Your task to perform on an android device: turn off sleep mode Image 0: 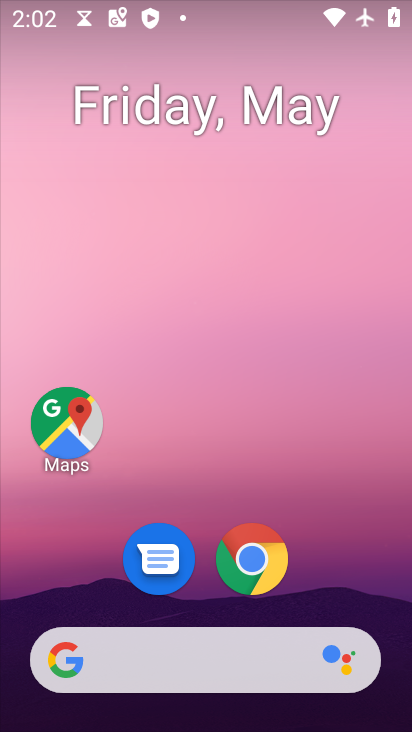
Step 0: drag from (309, 544) to (293, 19)
Your task to perform on an android device: turn off sleep mode Image 1: 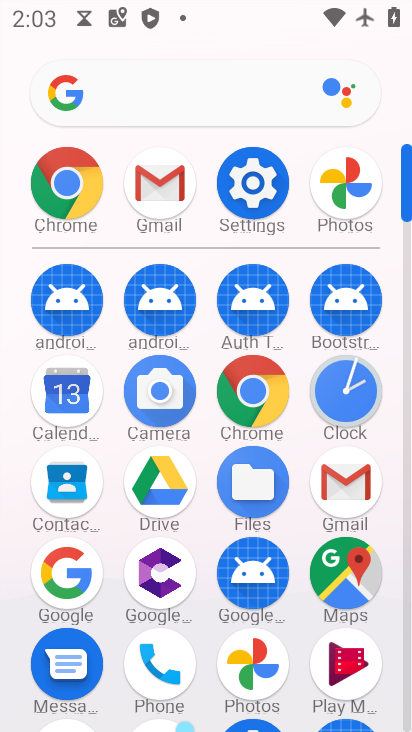
Step 1: click (270, 197)
Your task to perform on an android device: turn off sleep mode Image 2: 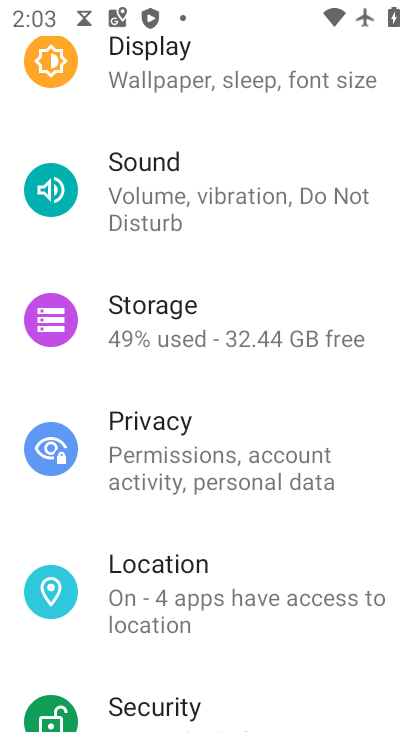
Step 2: click (242, 87)
Your task to perform on an android device: turn off sleep mode Image 3: 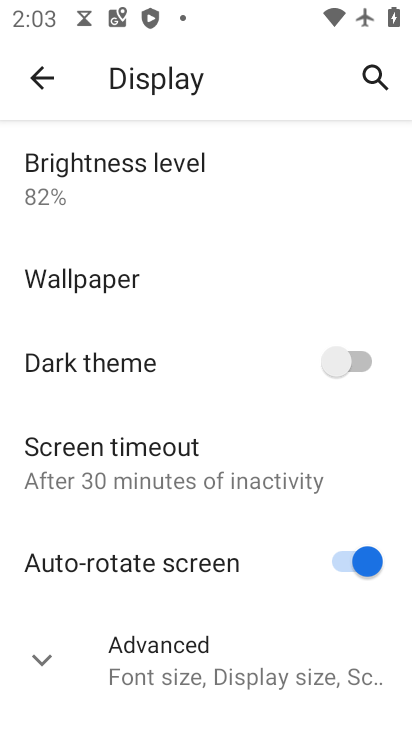
Step 3: click (45, 661)
Your task to perform on an android device: turn off sleep mode Image 4: 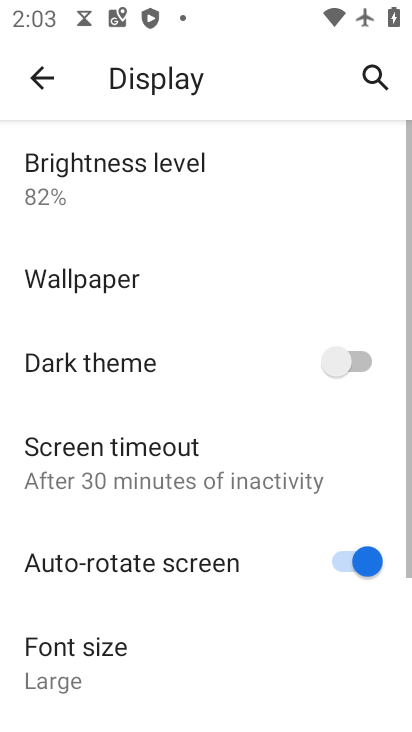
Step 4: task complete